Your task to perform on an android device: Check the weather Image 0: 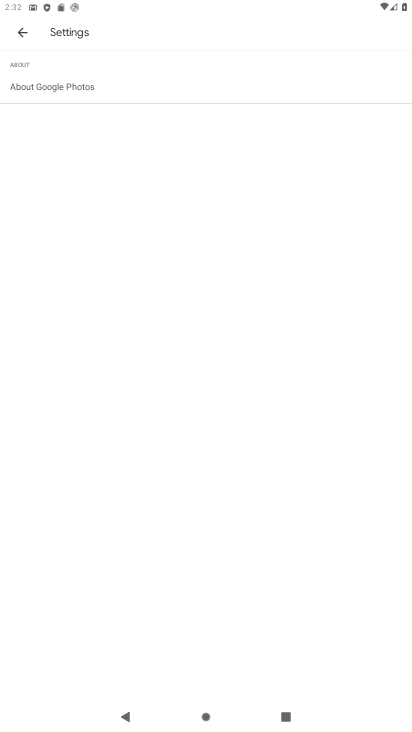
Step 0: press home button
Your task to perform on an android device: Check the weather Image 1: 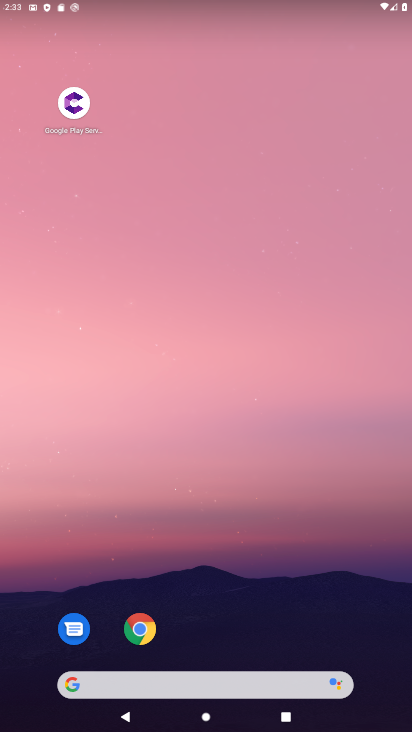
Step 1: click (165, 682)
Your task to perform on an android device: Check the weather Image 2: 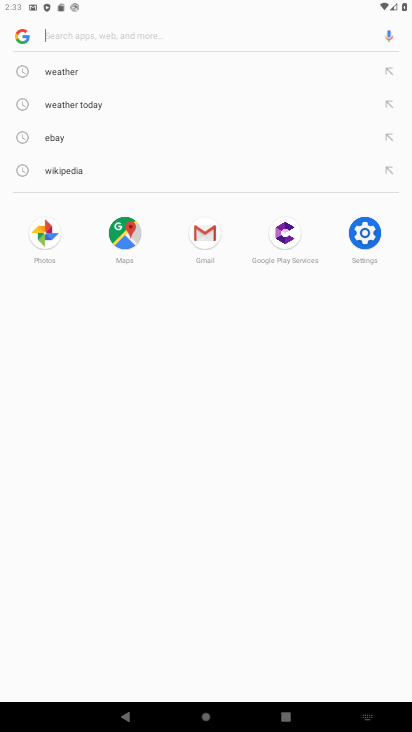
Step 2: click (57, 78)
Your task to perform on an android device: Check the weather Image 3: 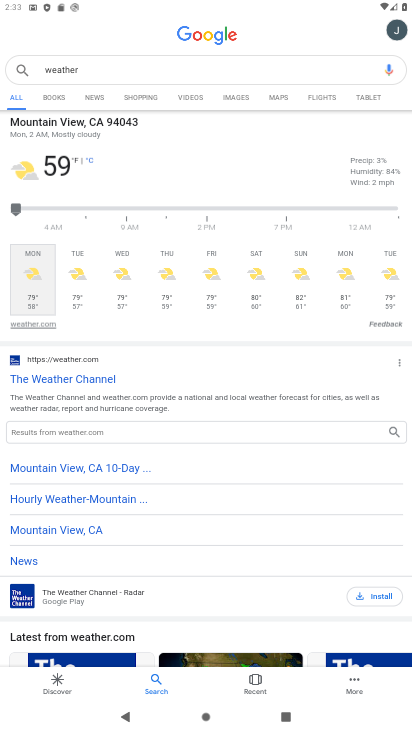
Step 3: task complete